Your task to perform on an android device: Go to internet settings Image 0: 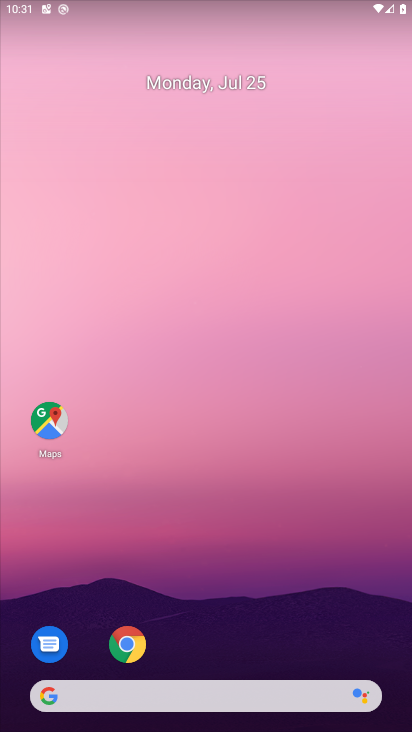
Step 0: drag from (348, 666) to (339, 109)
Your task to perform on an android device: Go to internet settings Image 1: 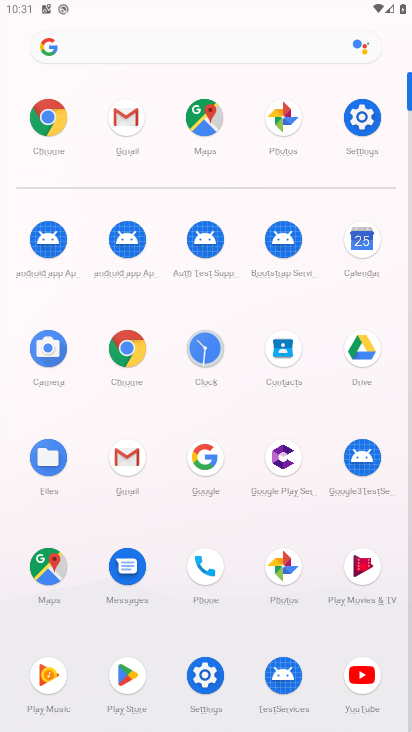
Step 1: click (371, 117)
Your task to perform on an android device: Go to internet settings Image 2: 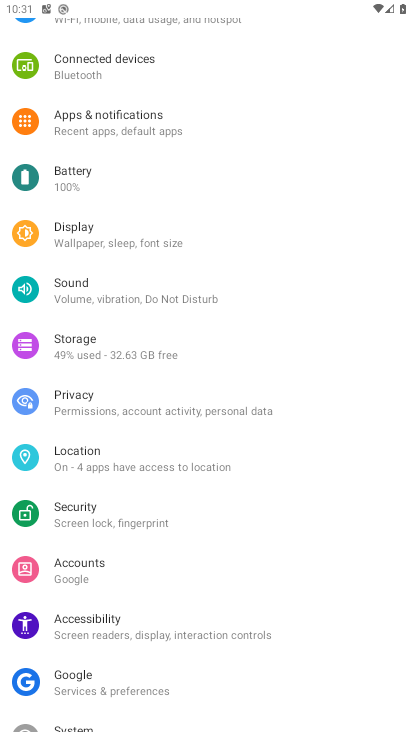
Step 2: drag from (193, 147) to (332, 525)
Your task to perform on an android device: Go to internet settings Image 3: 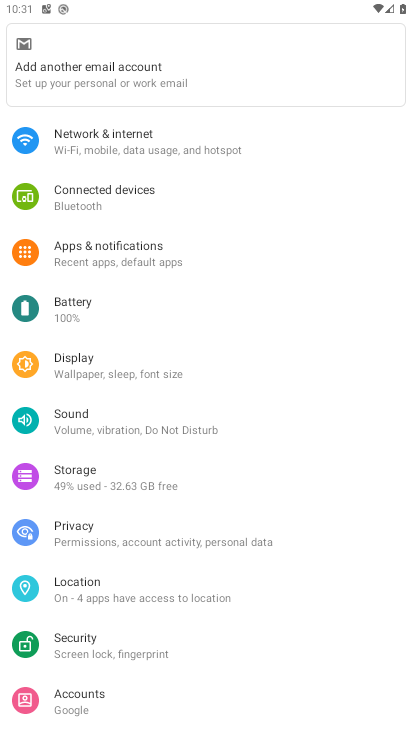
Step 3: click (134, 156)
Your task to perform on an android device: Go to internet settings Image 4: 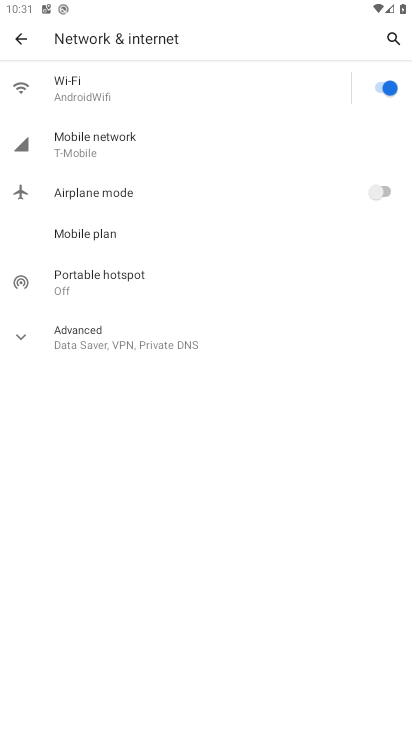
Step 4: task complete